Your task to perform on an android device: Open sound settings Image 0: 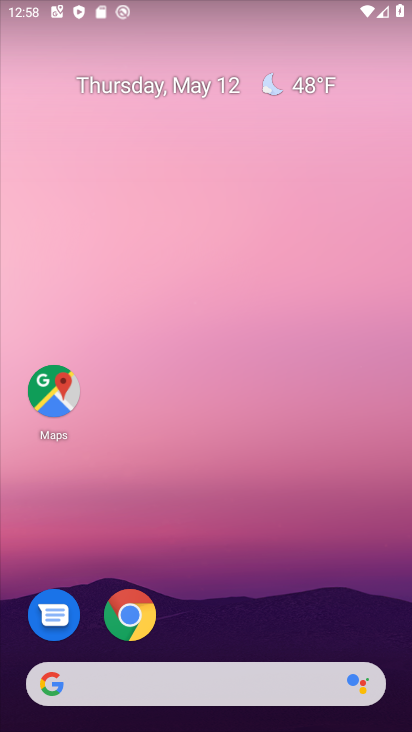
Step 0: drag from (252, 666) to (286, 18)
Your task to perform on an android device: Open sound settings Image 1: 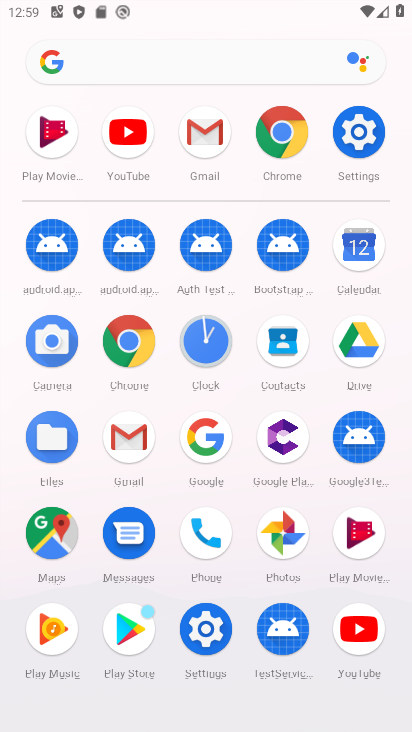
Step 1: click (368, 132)
Your task to perform on an android device: Open sound settings Image 2: 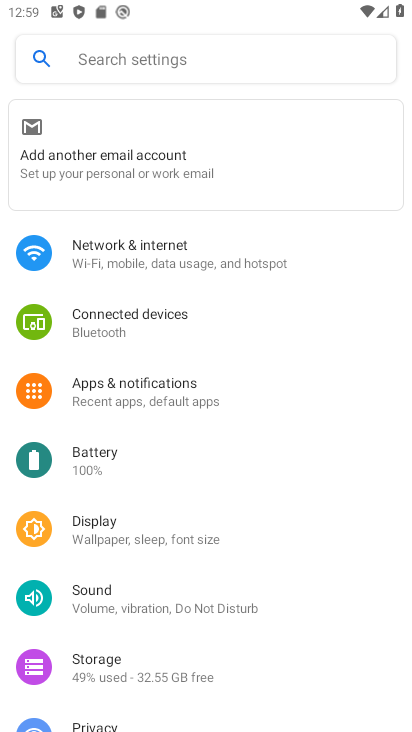
Step 2: drag from (180, 653) to (205, 523)
Your task to perform on an android device: Open sound settings Image 3: 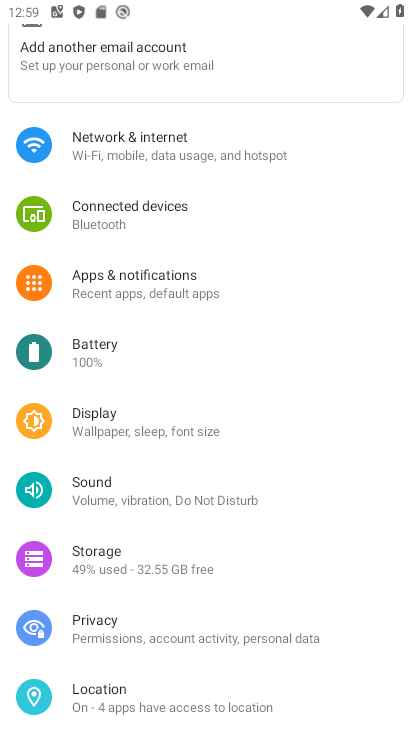
Step 3: click (156, 487)
Your task to perform on an android device: Open sound settings Image 4: 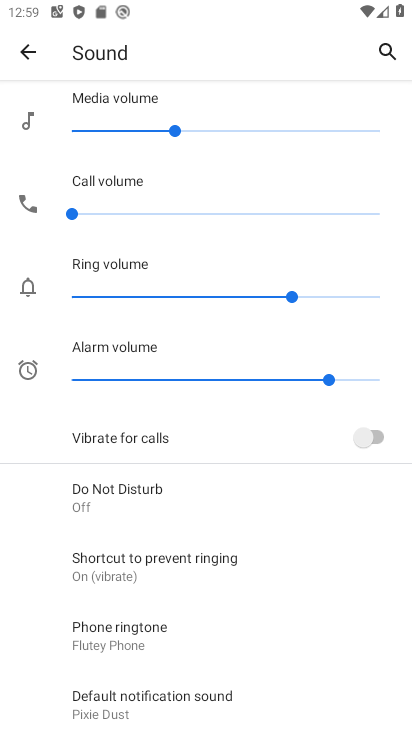
Step 4: task complete